Your task to perform on an android device: toggle priority inbox in the gmail app Image 0: 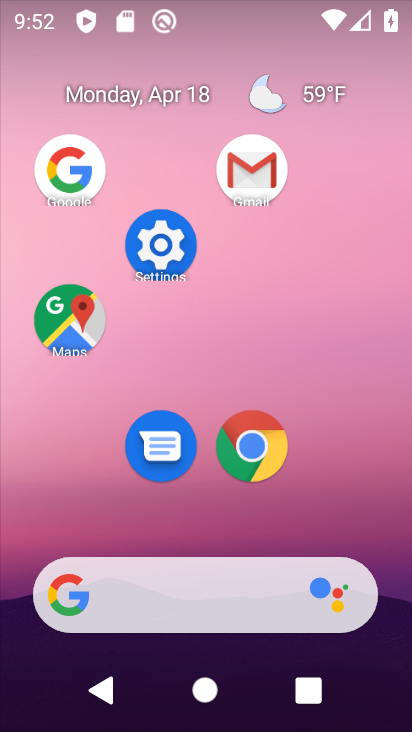
Step 0: click (265, 168)
Your task to perform on an android device: toggle priority inbox in the gmail app Image 1: 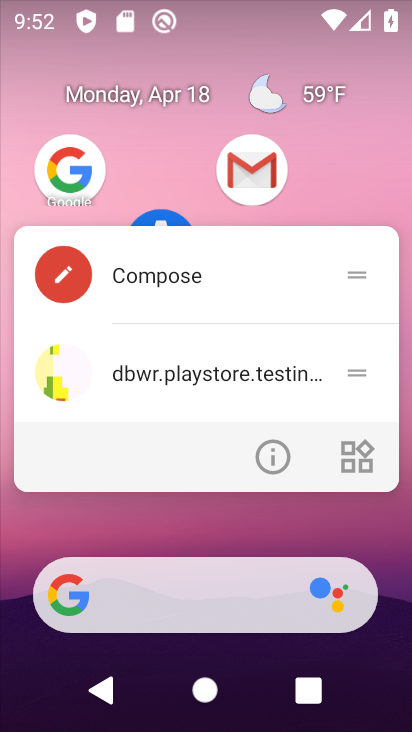
Step 1: click (248, 178)
Your task to perform on an android device: toggle priority inbox in the gmail app Image 2: 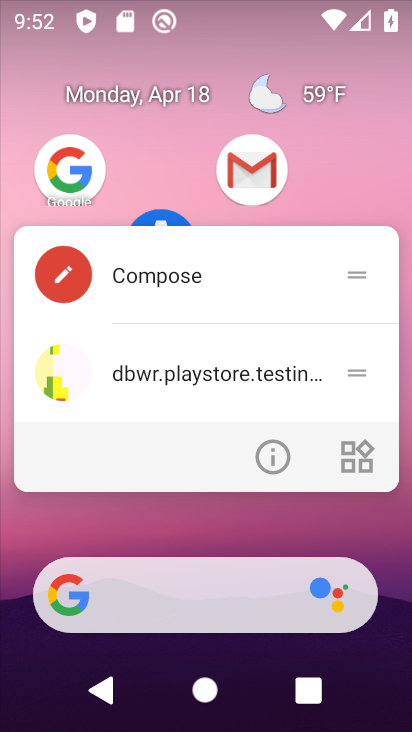
Step 2: click (248, 178)
Your task to perform on an android device: toggle priority inbox in the gmail app Image 3: 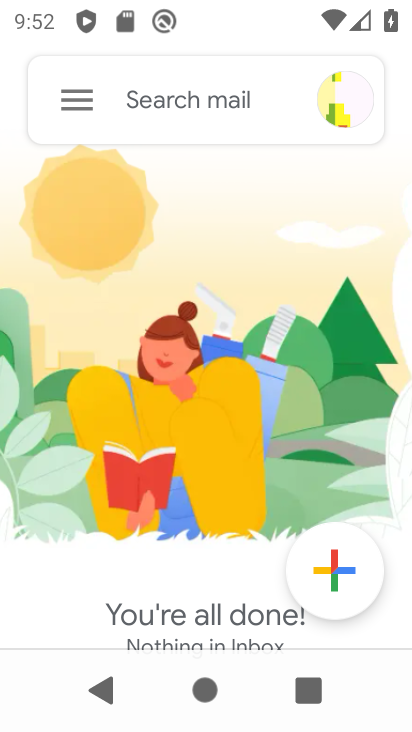
Step 3: click (72, 96)
Your task to perform on an android device: toggle priority inbox in the gmail app Image 4: 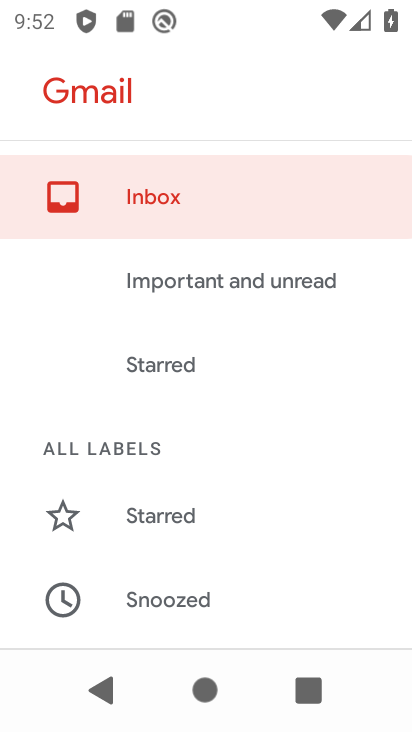
Step 4: drag from (262, 530) to (380, 66)
Your task to perform on an android device: toggle priority inbox in the gmail app Image 5: 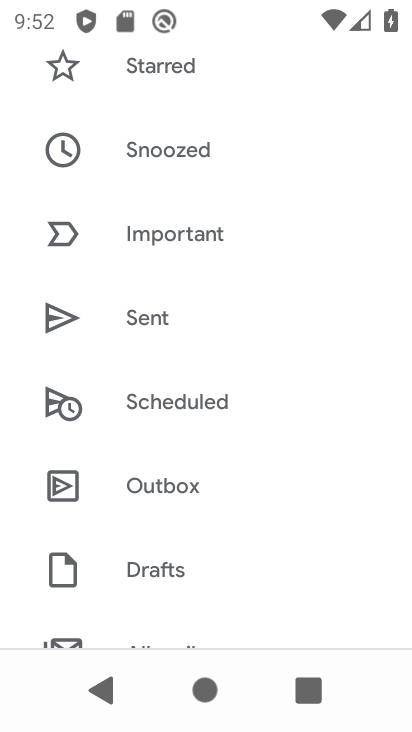
Step 5: drag from (176, 541) to (278, 132)
Your task to perform on an android device: toggle priority inbox in the gmail app Image 6: 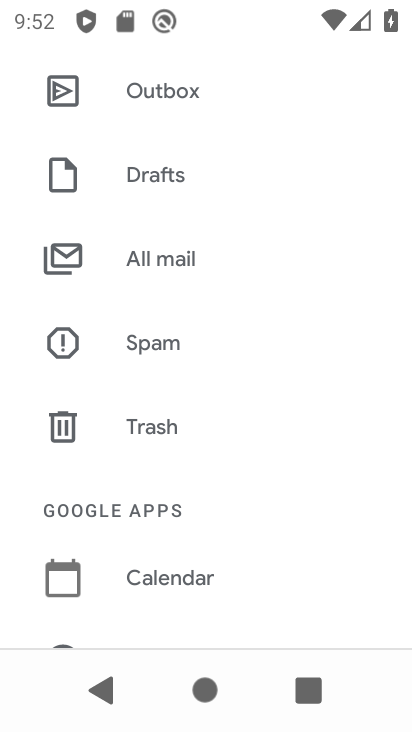
Step 6: drag from (119, 577) to (180, 169)
Your task to perform on an android device: toggle priority inbox in the gmail app Image 7: 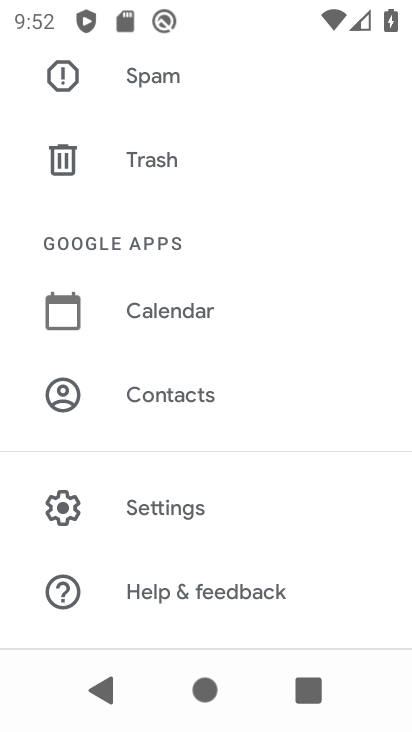
Step 7: click (146, 507)
Your task to perform on an android device: toggle priority inbox in the gmail app Image 8: 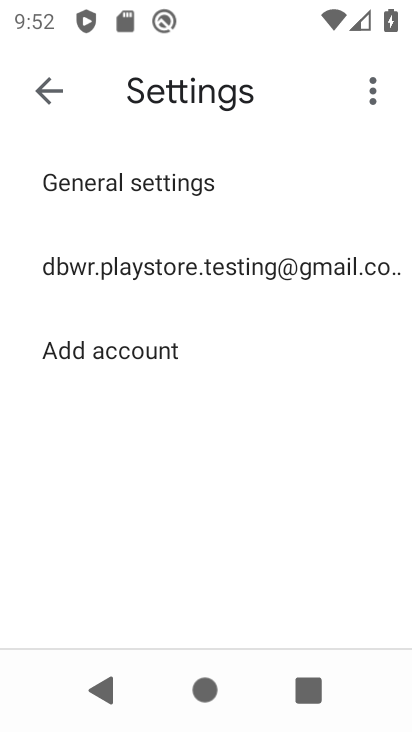
Step 8: click (246, 261)
Your task to perform on an android device: toggle priority inbox in the gmail app Image 9: 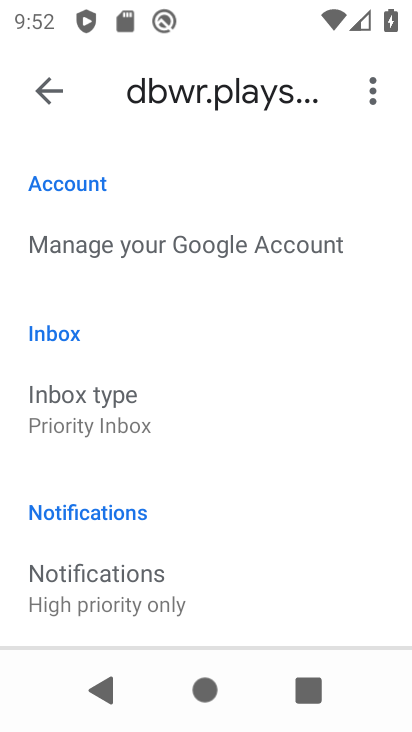
Step 9: click (129, 384)
Your task to perform on an android device: toggle priority inbox in the gmail app Image 10: 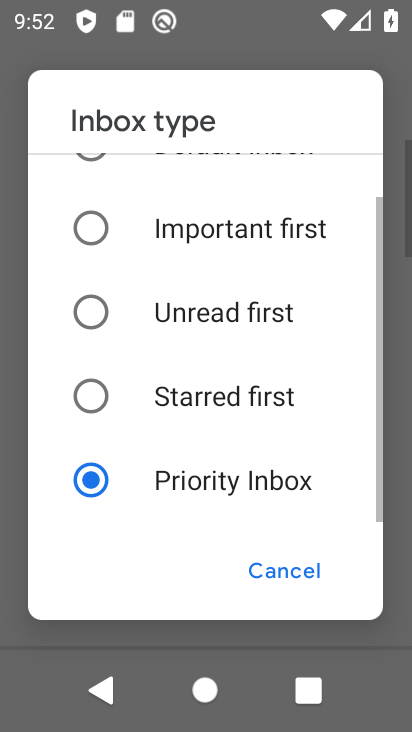
Step 10: drag from (174, 257) to (98, 564)
Your task to perform on an android device: toggle priority inbox in the gmail app Image 11: 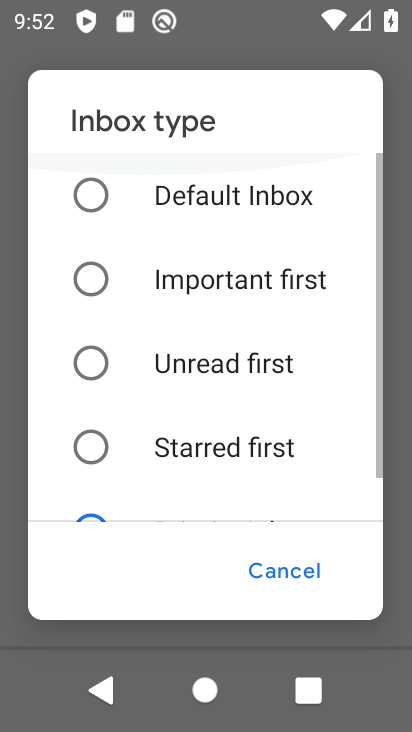
Step 11: click (173, 200)
Your task to perform on an android device: toggle priority inbox in the gmail app Image 12: 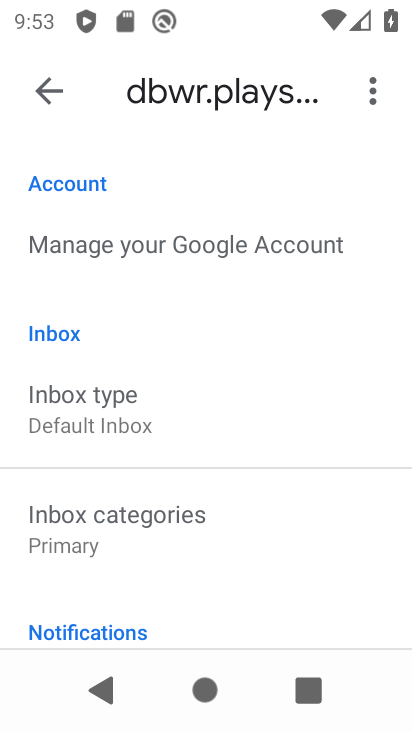
Step 12: task complete